Your task to perform on an android device: Open Google Chrome and click the shortcut for Amazon.com Image 0: 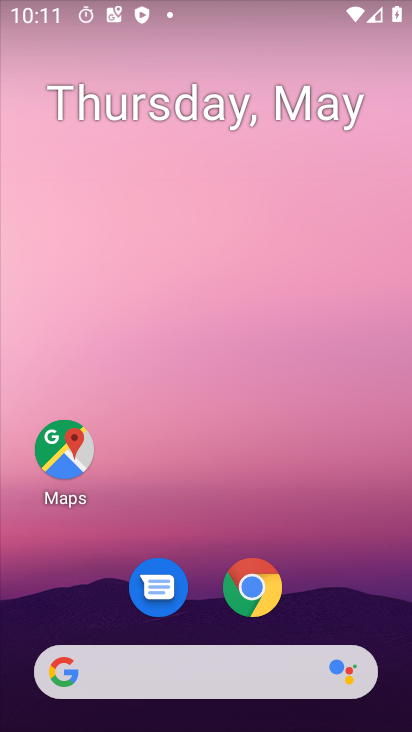
Step 0: click (256, 593)
Your task to perform on an android device: Open Google Chrome and click the shortcut for Amazon.com Image 1: 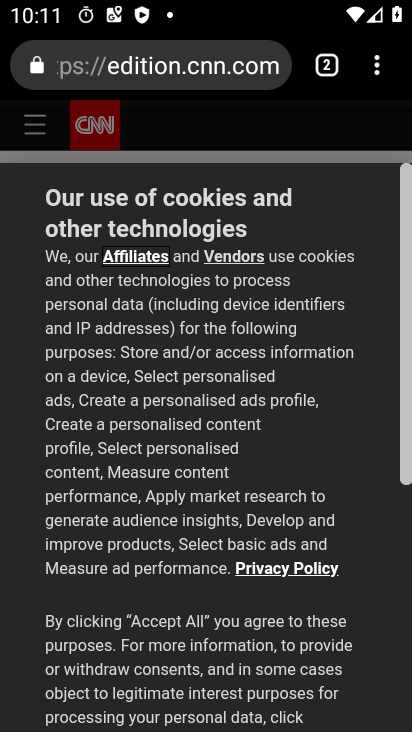
Step 1: drag from (272, 46) to (275, 278)
Your task to perform on an android device: Open Google Chrome and click the shortcut for Amazon.com Image 2: 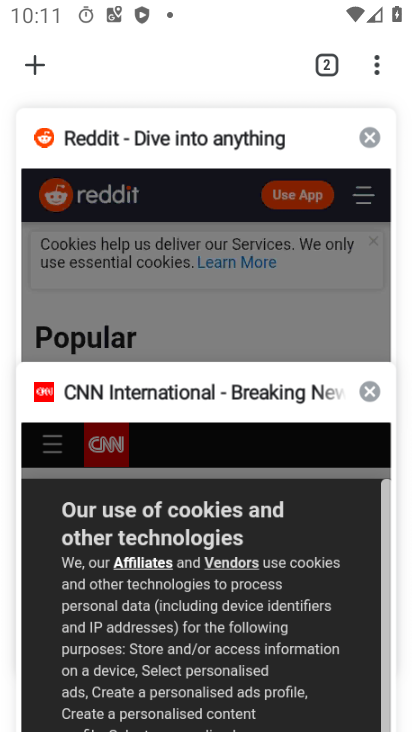
Step 2: click (28, 66)
Your task to perform on an android device: Open Google Chrome and click the shortcut for Amazon.com Image 3: 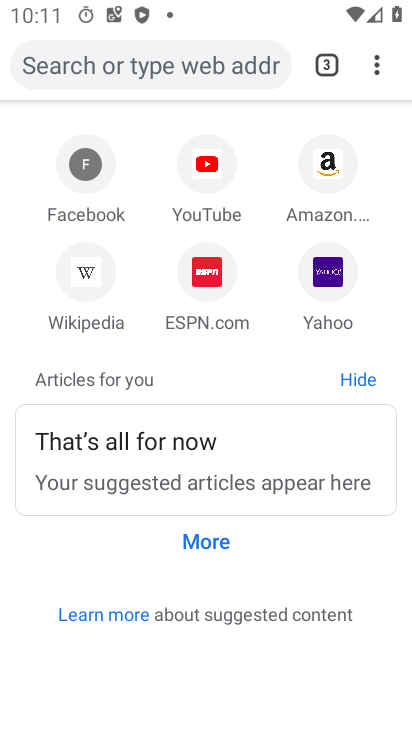
Step 3: click (328, 165)
Your task to perform on an android device: Open Google Chrome and click the shortcut for Amazon.com Image 4: 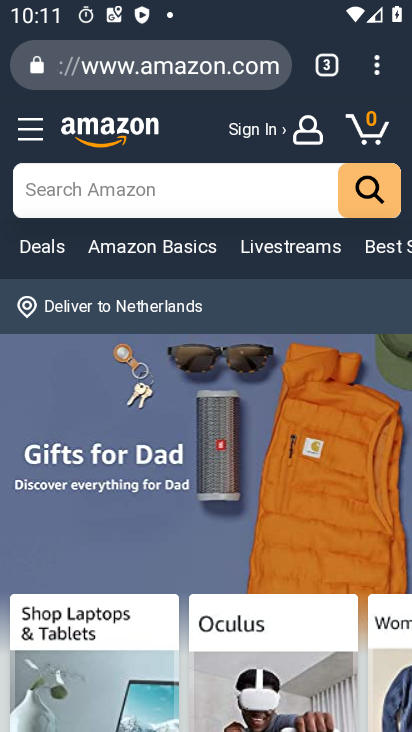
Step 4: task complete